Your task to perform on an android device: turn on notifications settings in the gmail app Image 0: 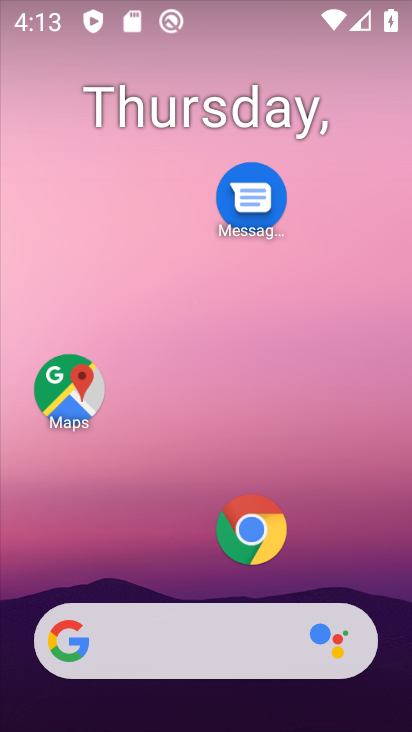
Step 0: drag from (181, 542) to (301, 69)
Your task to perform on an android device: turn on notifications settings in the gmail app Image 1: 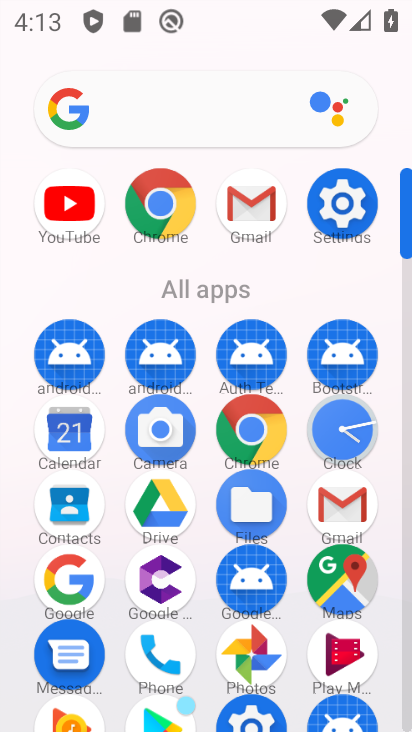
Step 1: click (248, 196)
Your task to perform on an android device: turn on notifications settings in the gmail app Image 2: 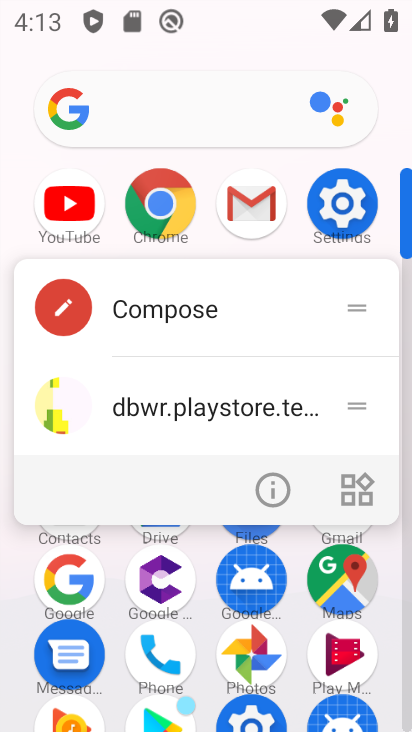
Step 2: click (276, 480)
Your task to perform on an android device: turn on notifications settings in the gmail app Image 3: 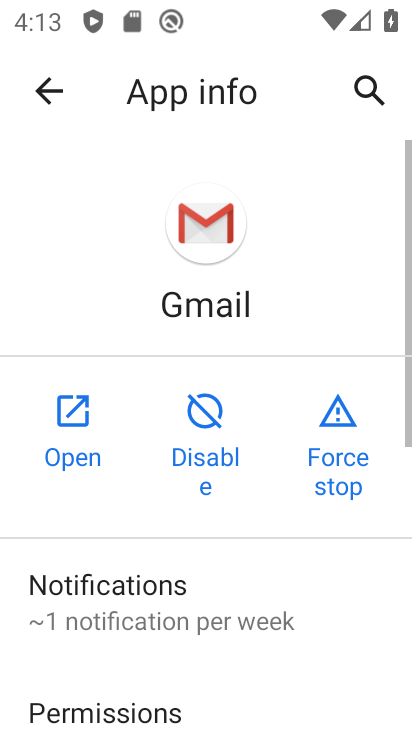
Step 3: click (171, 594)
Your task to perform on an android device: turn on notifications settings in the gmail app Image 4: 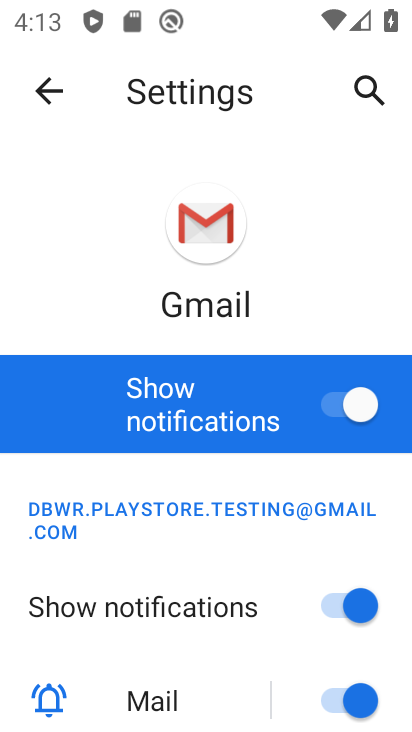
Step 4: task complete